Your task to perform on an android device: open wifi settings Image 0: 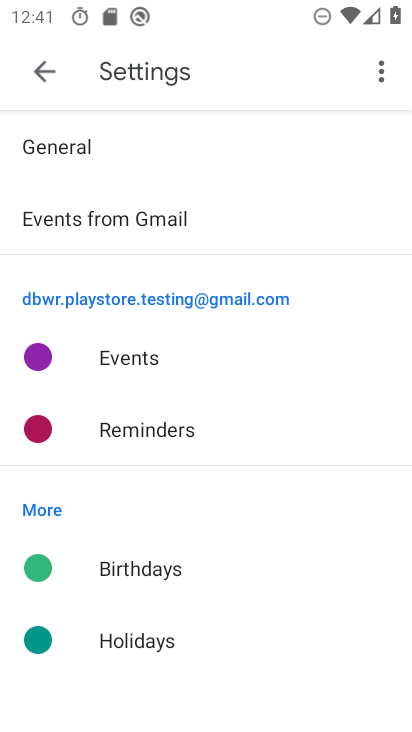
Step 0: press back button
Your task to perform on an android device: open wifi settings Image 1: 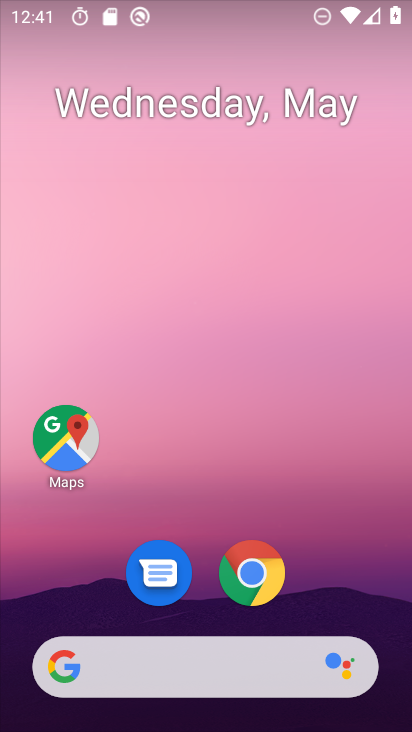
Step 1: drag from (347, 578) to (234, 8)
Your task to perform on an android device: open wifi settings Image 2: 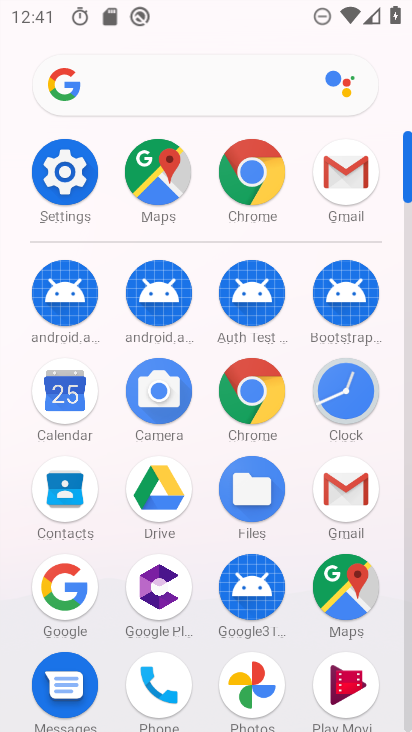
Step 2: drag from (13, 561) to (6, 193)
Your task to perform on an android device: open wifi settings Image 3: 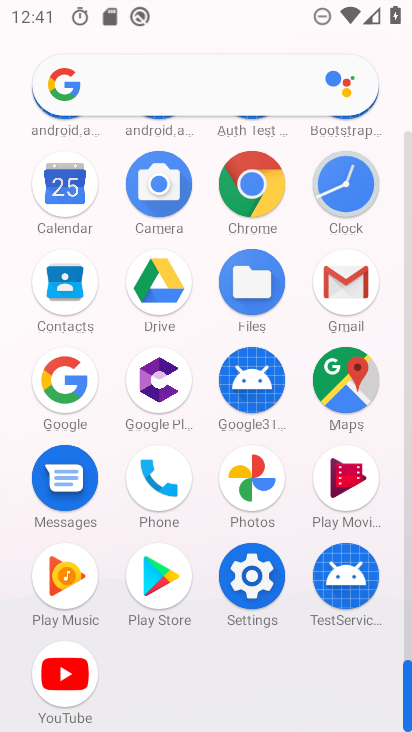
Step 3: click (250, 567)
Your task to perform on an android device: open wifi settings Image 4: 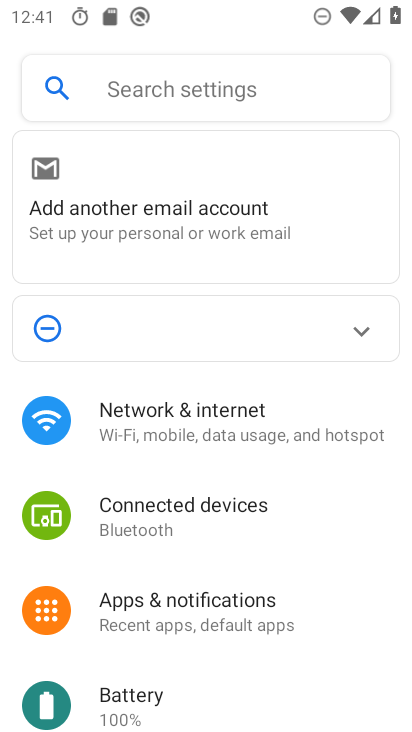
Step 4: click (187, 251)
Your task to perform on an android device: open wifi settings Image 5: 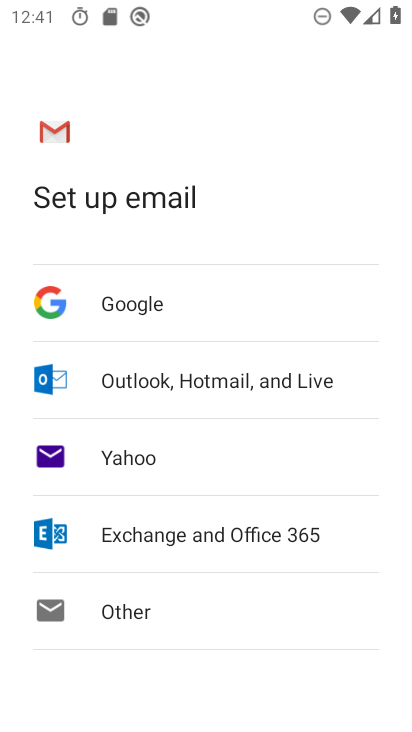
Step 5: press back button
Your task to perform on an android device: open wifi settings Image 6: 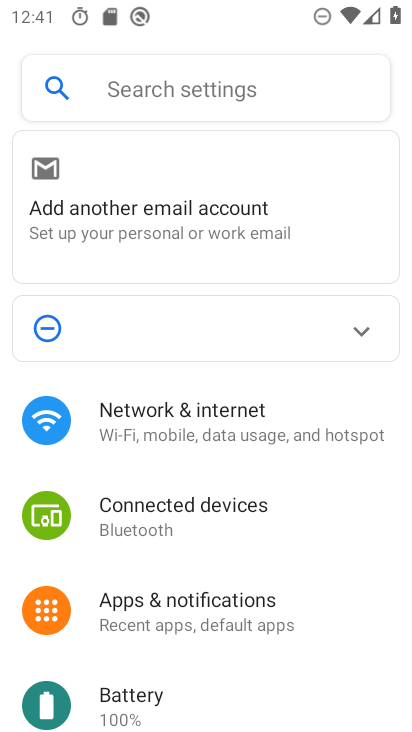
Step 6: click (230, 438)
Your task to perform on an android device: open wifi settings Image 7: 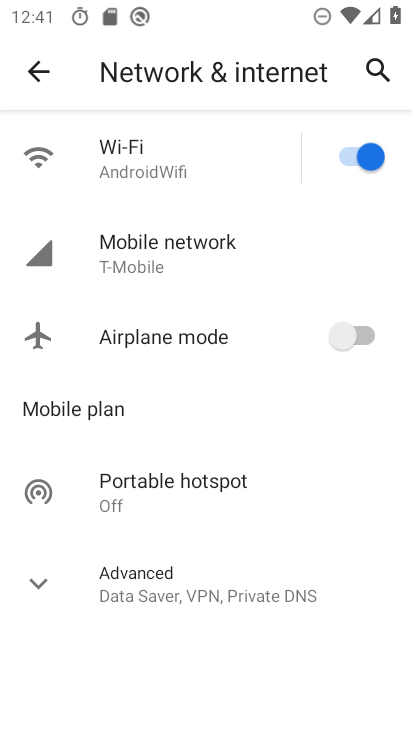
Step 7: click (173, 161)
Your task to perform on an android device: open wifi settings Image 8: 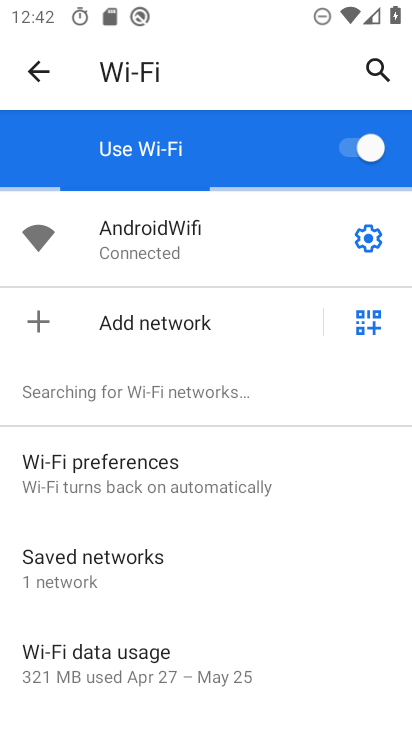
Step 8: task complete